Your task to perform on an android device: toggle location history Image 0: 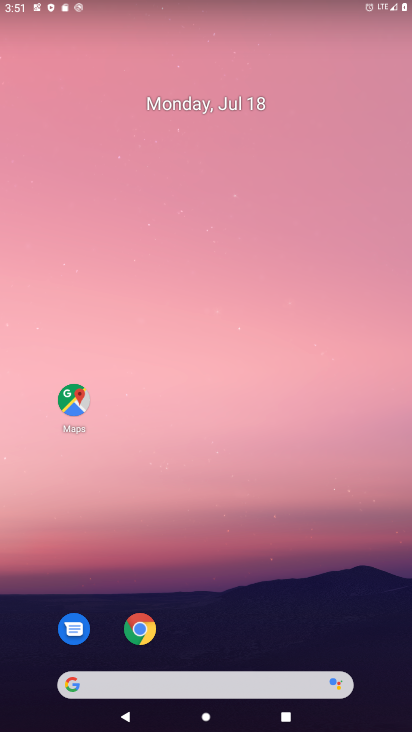
Step 0: drag from (211, 580) to (276, 27)
Your task to perform on an android device: toggle location history Image 1: 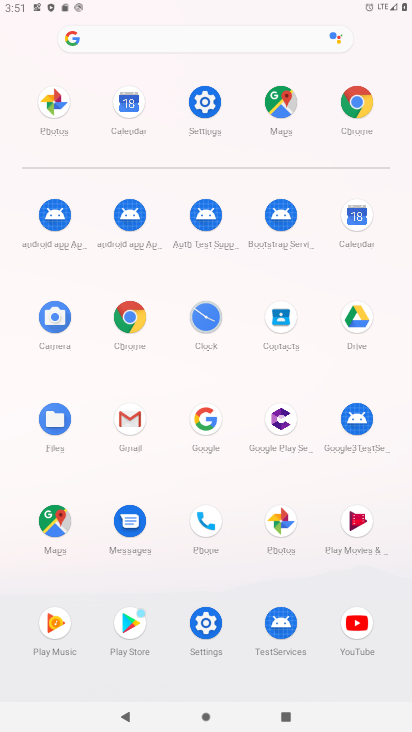
Step 1: click (213, 124)
Your task to perform on an android device: toggle location history Image 2: 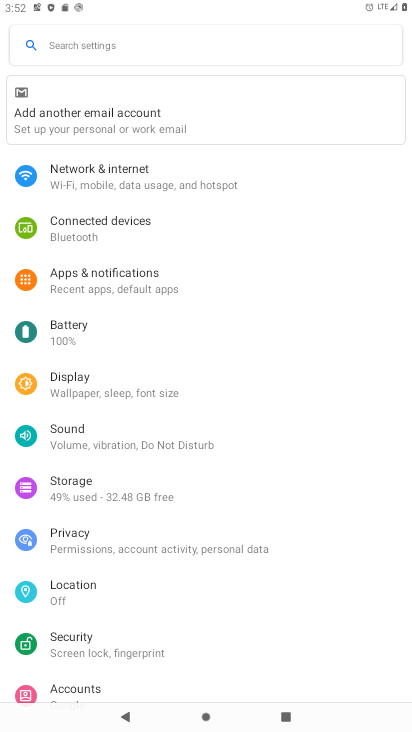
Step 2: click (79, 600)
Your task to perform on an android device: toggle location history Image 3: 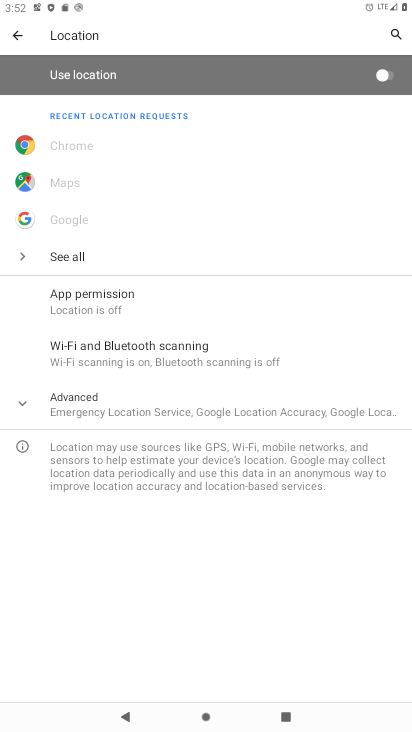
Step 3: click (108, 410)
Your task to perform on an android device: toggle location history Image 4: 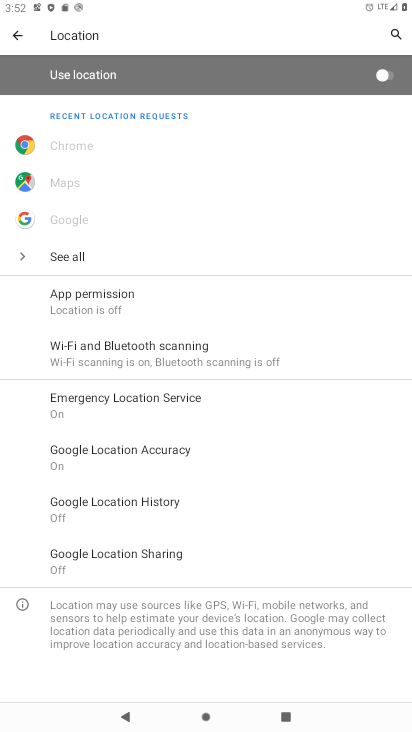
Step 4: click (144, 497)
Your task to perform on an android device: toggle location history Image 5: 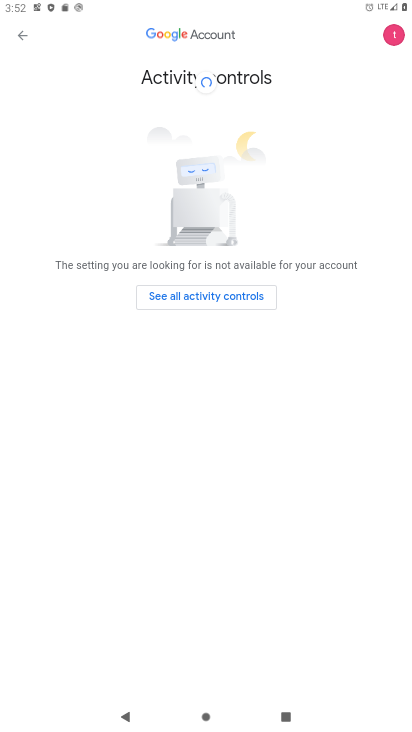
Step 5: click (222, 301)
Your task to perform on an android device: toggle location history Image 6: 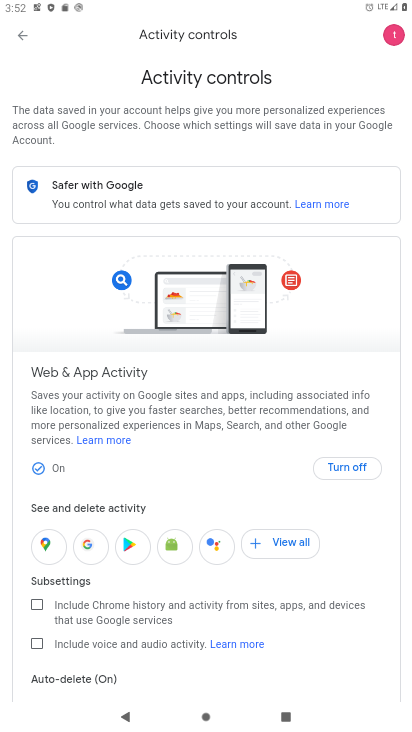
Step 6: click (356, 463)
Your task to perform on an android device: toggle location history Image 7: 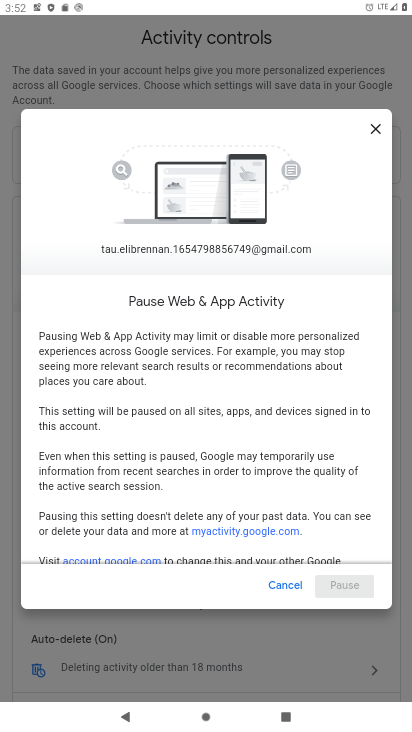
Step 7: drag from (251, 530) to (264, 240)
Your task to perform on an android device: toggle location history Image 8: 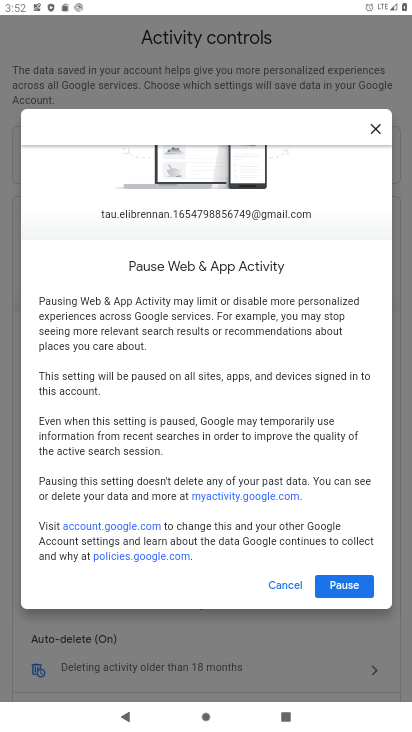
Step 8: click (345, 583)
Your task to perform on an android device: toggle location history Image 9: 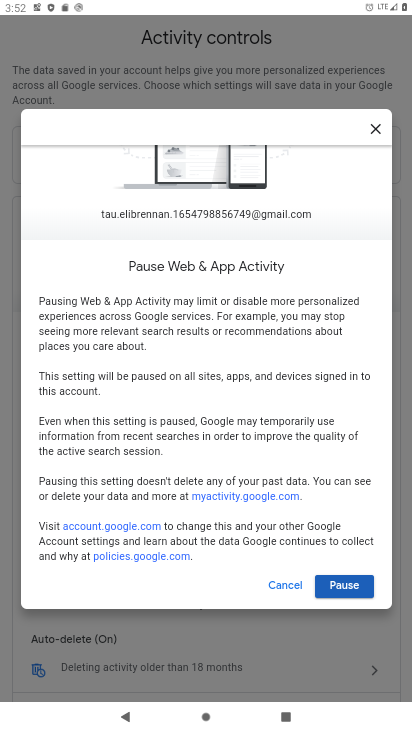
Step 9: click (328, 582)
Your task to perform on an android device: toggle location history Image 10: 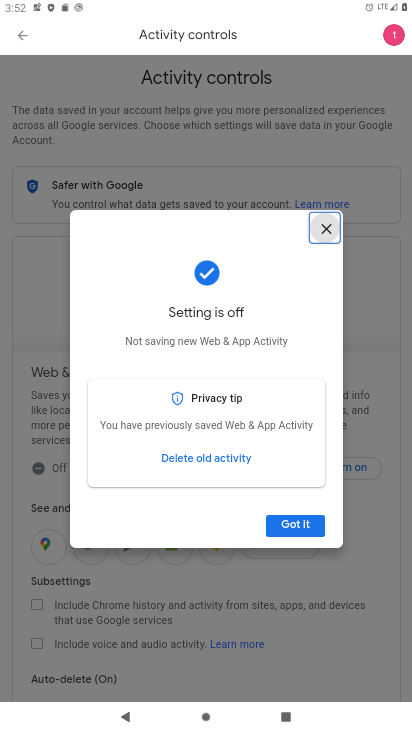
Step 10: click (304, 526)
Your task to perform on an android device: toggle location history Image 11: 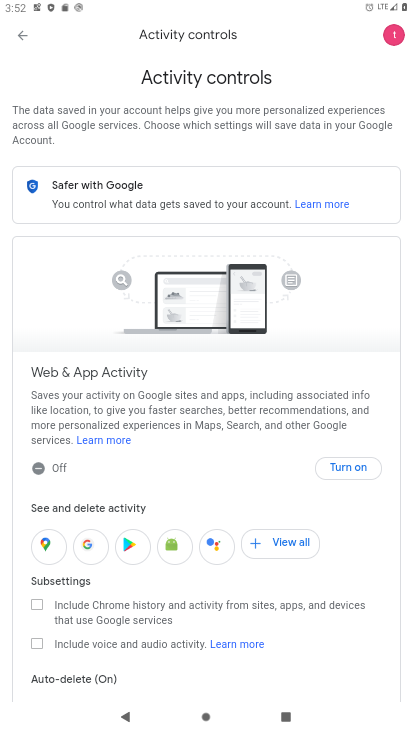
Step 11: task complete